Your task to perform on an android device: Open eBay Image 0: 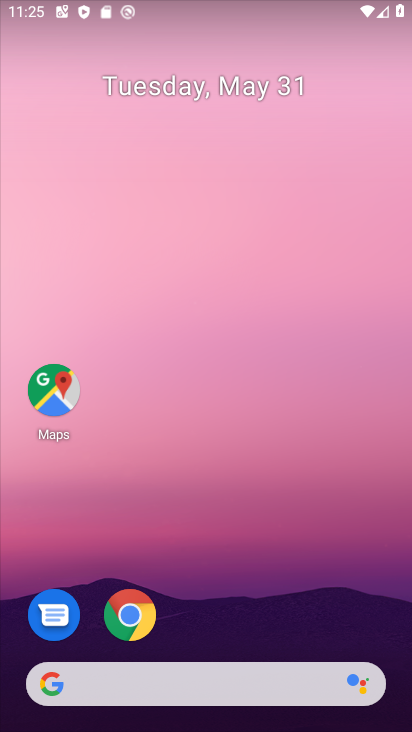
Step 0: task complete